Your task to perform on an android device: Open Yahoo.com Image 0: 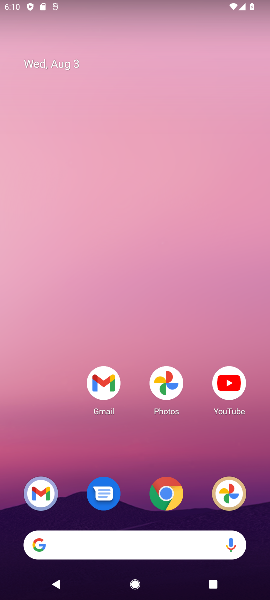
Step 0: click (160, 493)
Your task to perform on an android device: Open Yahoo.com Image 1: 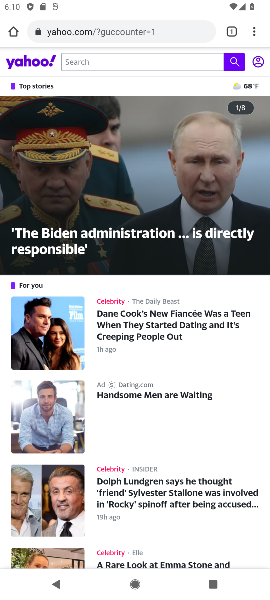
Step 1: task complete